Your task to perform on an android device: check data usage Image 0: 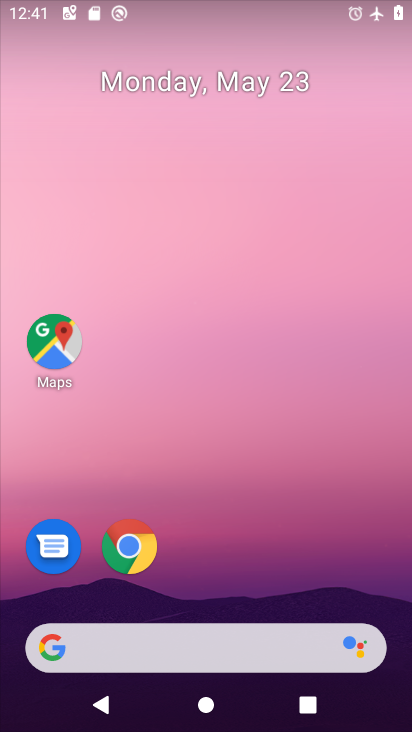
Step 0: drag from (281, 556) to (383, 19)
Your task to perform on an android device: check data usage Image 1: 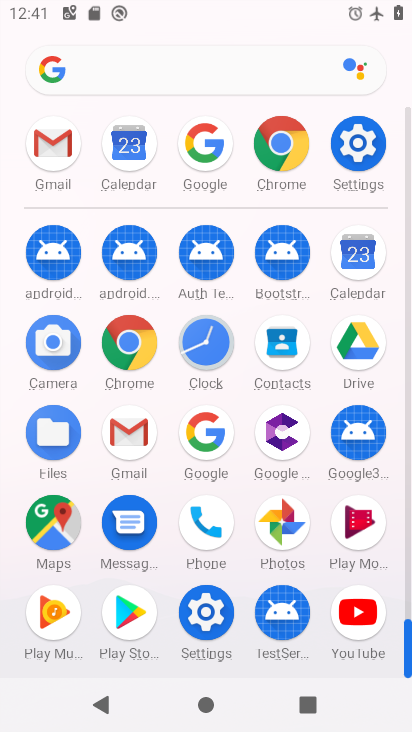
Step 1: click (356, 152)
Your task to perform on an android device: check data usage Image 2: 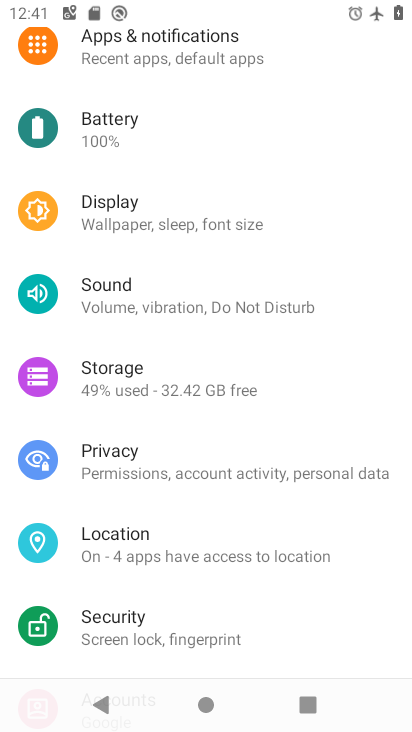
Step 2: drag from (202, 238) to (157, 715)
Your task to perform on an android device: check data usage Image 3: 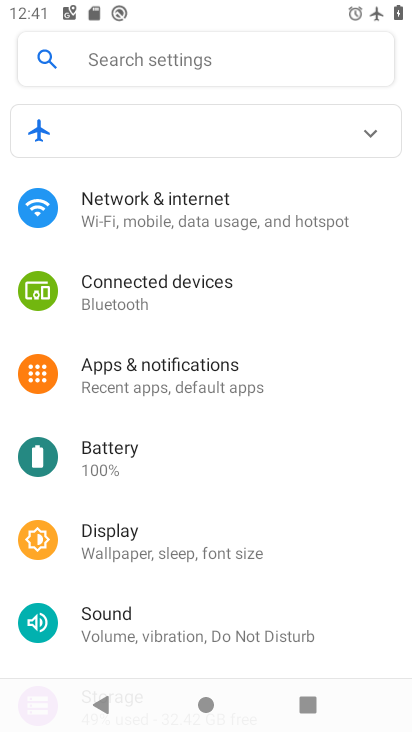
Step 3: drag from (239, 131) to (252, 719)
Your task to perform on an android device: check data usage Image 4: 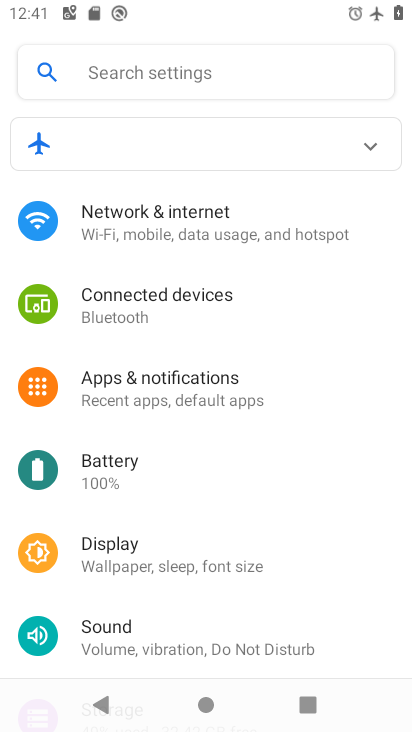
Step 4: drag from (235, 247) to (244, 643)
Your task to perform on an android device: check data usage Image 5: 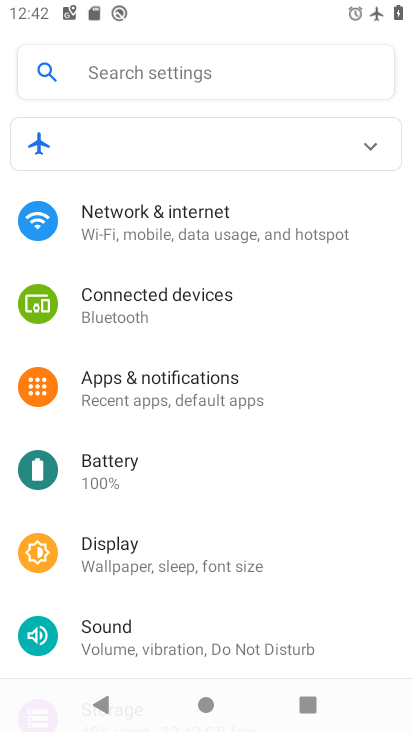
Step 5: click (244, 234)
Your task to perform on an android device: check data usage Image 6: 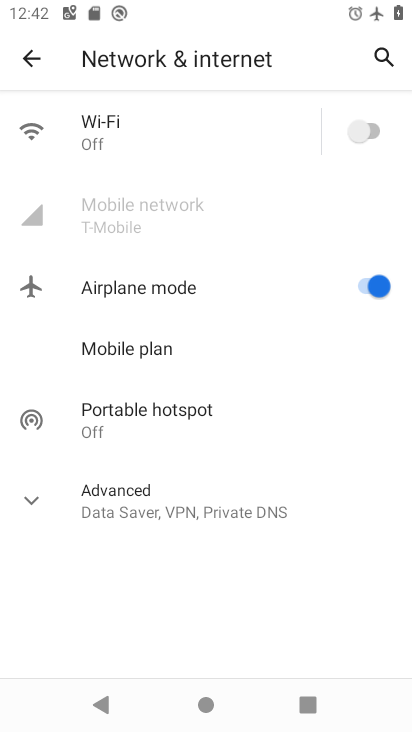
Step 6: click (182, 225)
Your task to perform on an android device: check data usage Image 7: 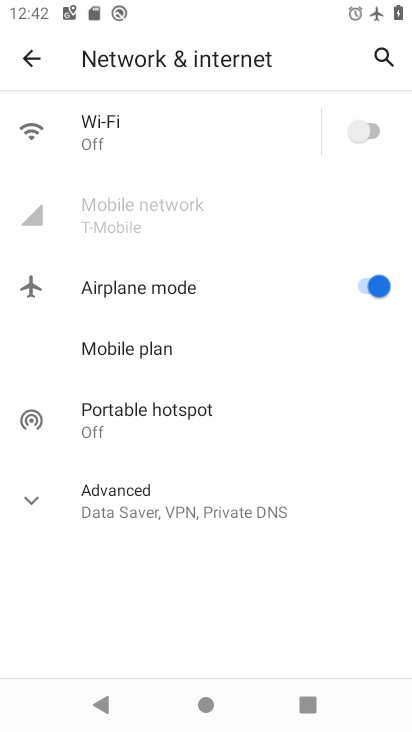
Step 7: task complete